Your task to perform on an android device: turn off improve location accuracy Image 0: 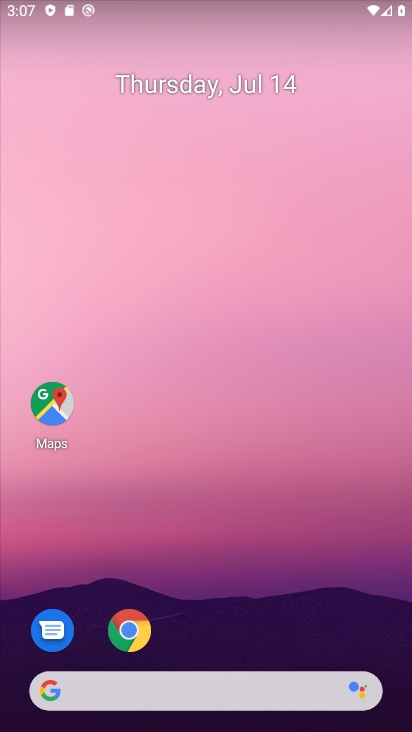
Step 0: drag from (330, 620) to (309, 10)
Your task to perform on an android device: turn off improve location accuracy Image 1: 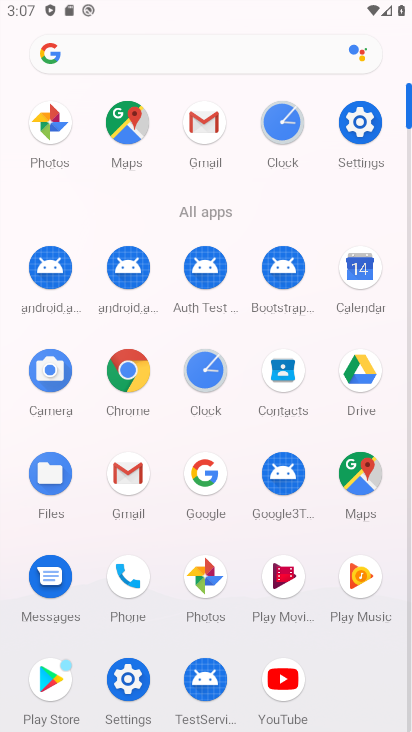
Step 1: click (364, 140)
Your task to perform on an android device: turn off improve location accuracy Image 2: 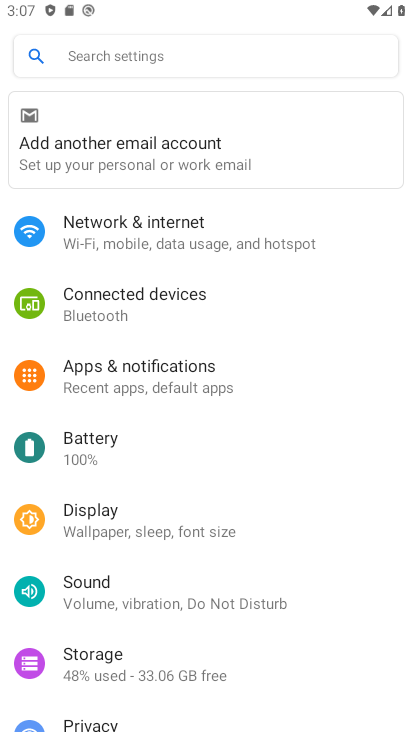
Step 2: drag from (245, 577) to (194, 422)
Your task to perform on an android device: turn off improve location accuracy Image 3: 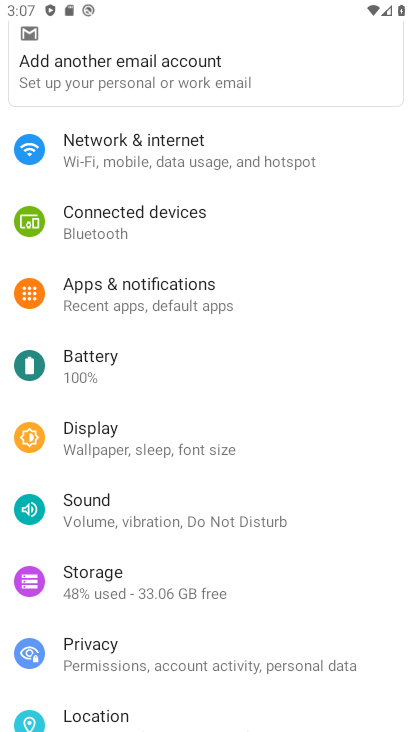
Step 3: click (115, 709)
Your task to perform on an android device: turn off improve location accuracy Image 4: 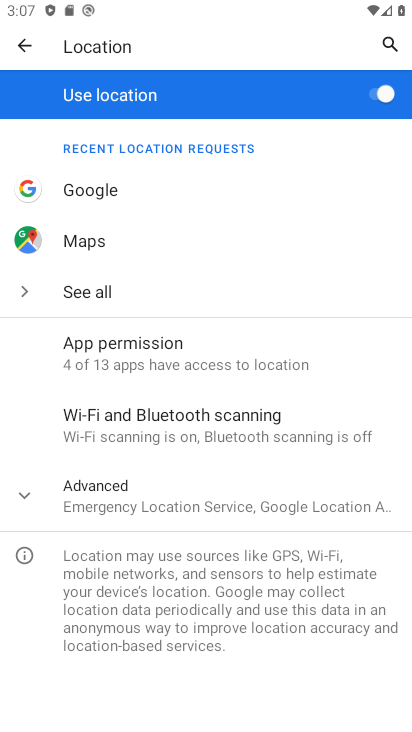
Step 4: click (177, 489)
Your task to perform on an android device: turn off improve location accuracy Image 5: 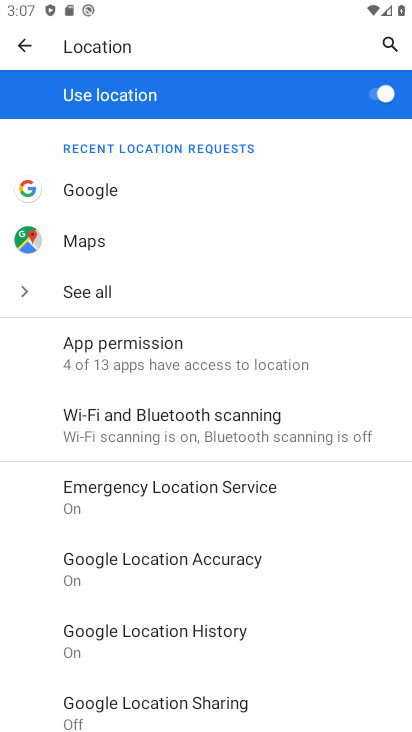
Step 5: click (199, 560)
Your task to perform on an android device: turn off improve location accuracy Image 6: 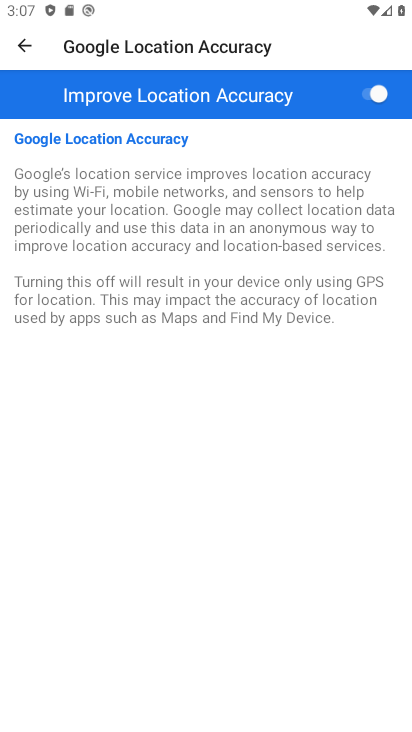
Step 6: click (374, 93)
Your task to perform on an android device: turn off improve location accuracy Image 7: 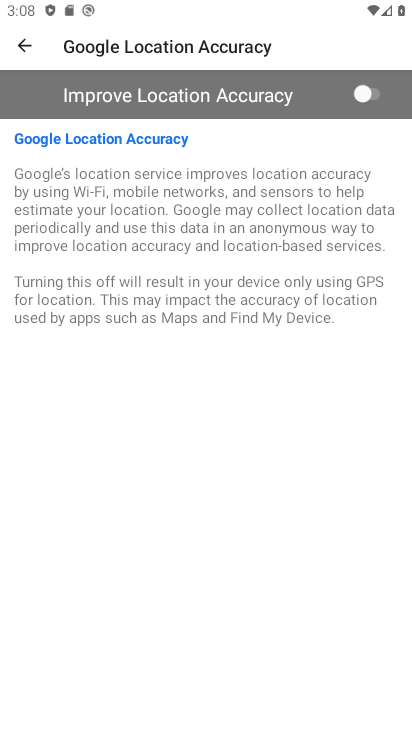
Step 7: task complete